Your task to perform on an android device: Go to sound settings Image 0: 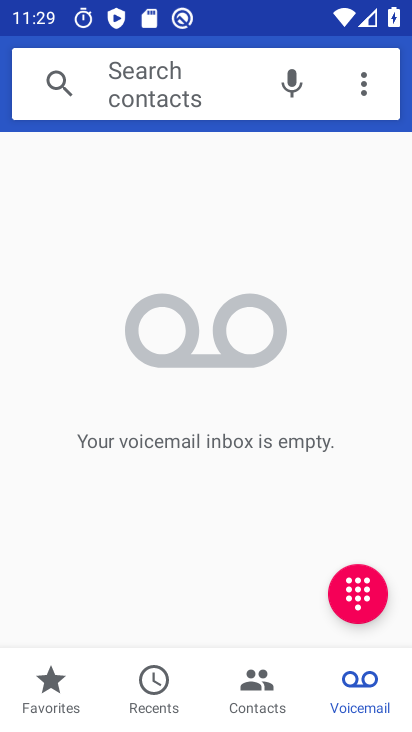
Step 0: press home button
Your task to perform on an android device: Go to sound settings Image 1: 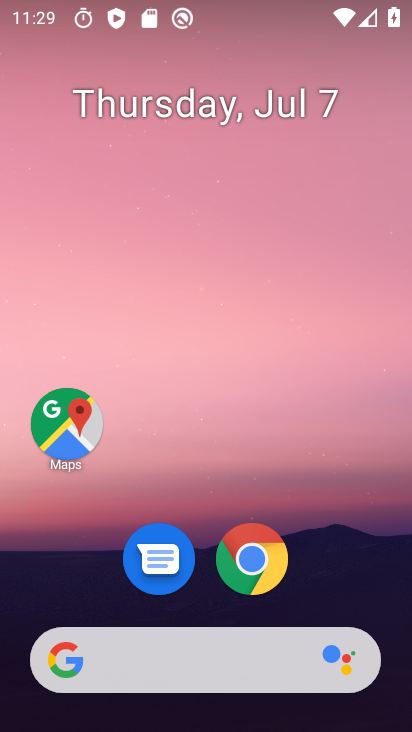
Step 1: drag from (367, 565) to (364, 79)
Your task to perform on an android device: Go to sound settings Image 2: 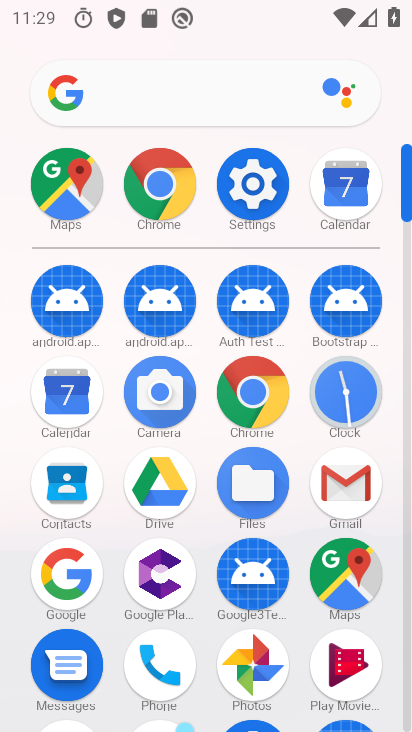
Step 2: click (250, 187)
Your task to perform on an android device: Go to sound settings Image 3: 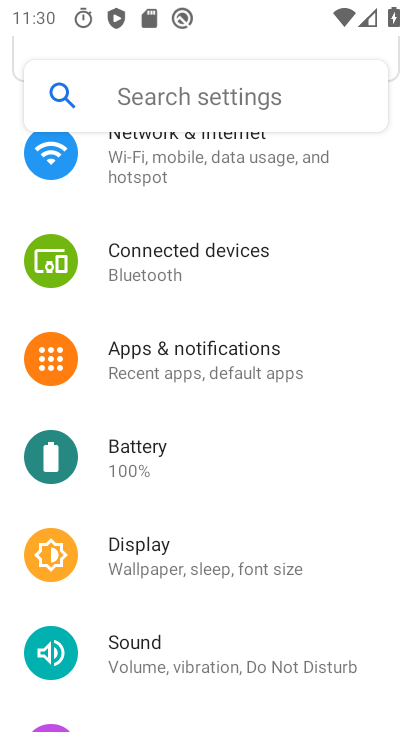
Step 3: drag from (351, 253) to (349, 441)
Your task to perform on an android device: Go to sound settings Image 4: 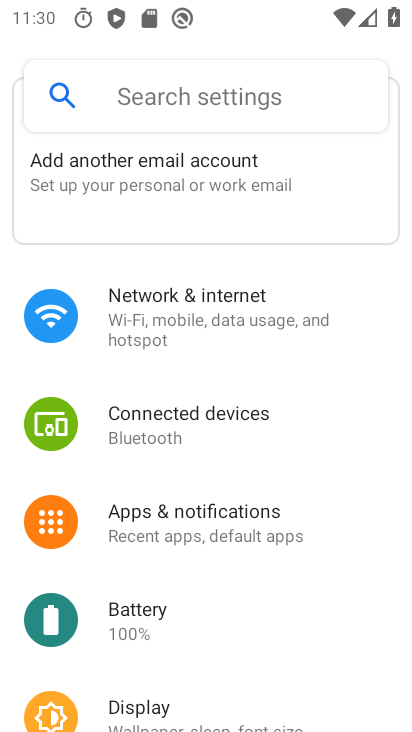
Step 4: drag from (302, 616) to (311, 332)
Your task to perform on an android device: Go to sound settings Image 5: 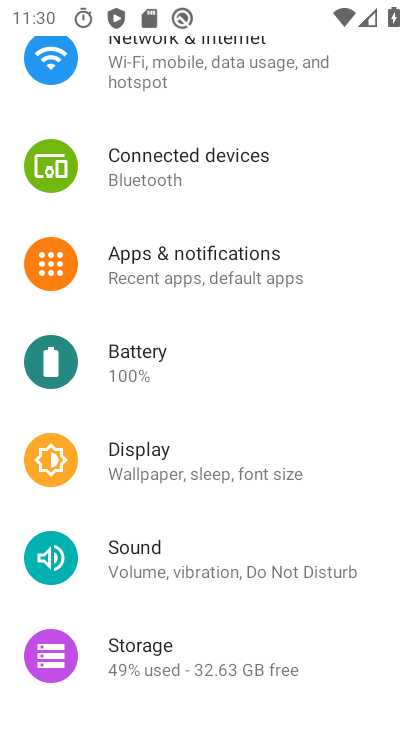
Step 5: click (235, 562)
Your task to perform on an android device: Go to sound settings Image 6: 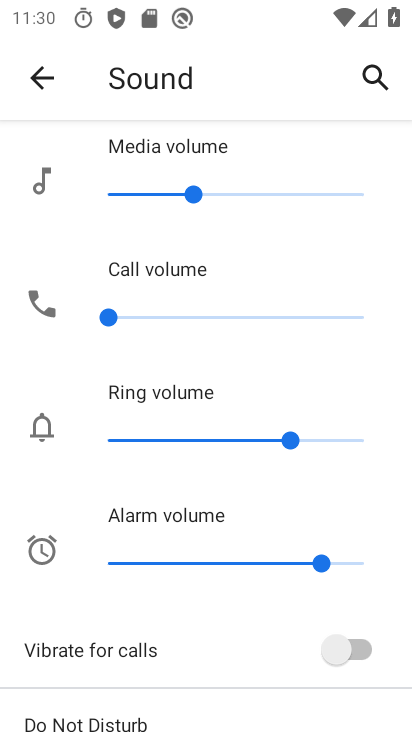
Step 6: task complete